Your task to perform on an android device: change the clock display to digital Image 0: 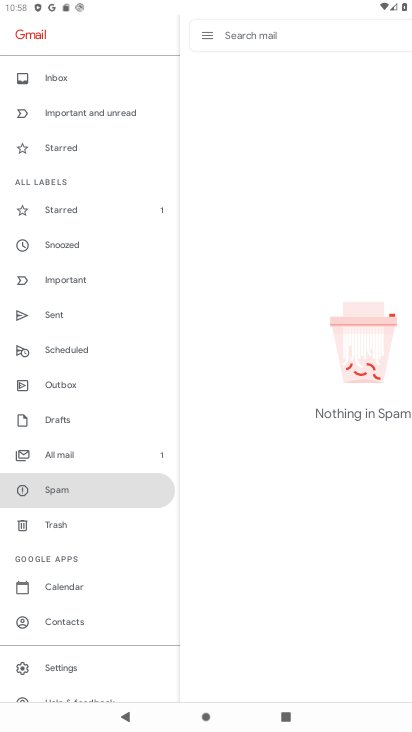
Step 0: press home button
Your task to perform on an android device: change the clock display to digital Image 1: 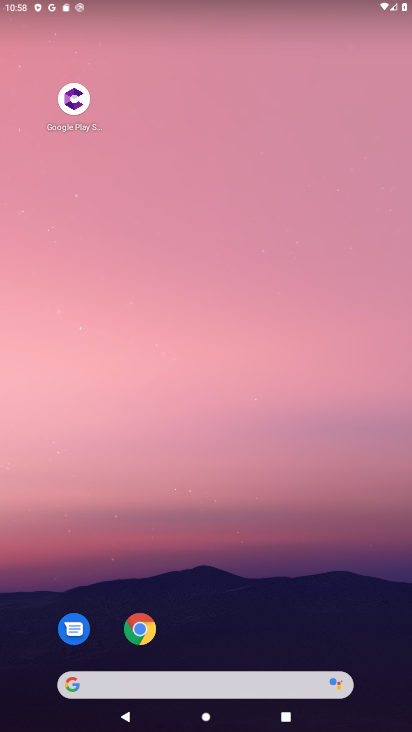
Step 1: drag from (291, 618) to (271, 104)
Your task to perform on an android device: change the clock display to digital Image 2: 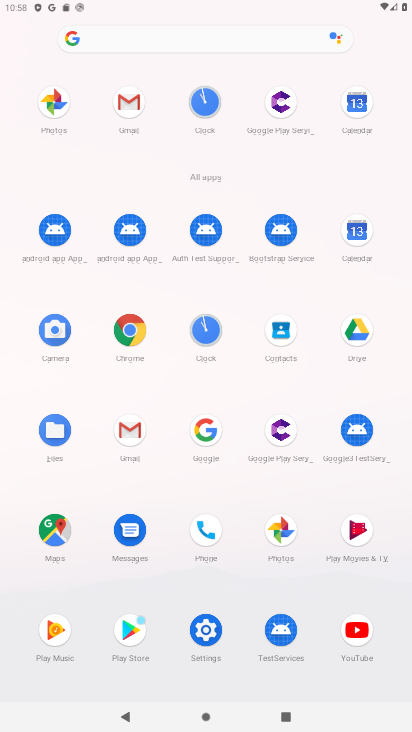
Step 2: click (201, 340)
Your task to perform on an android device: change the clock display to digital Image 3: 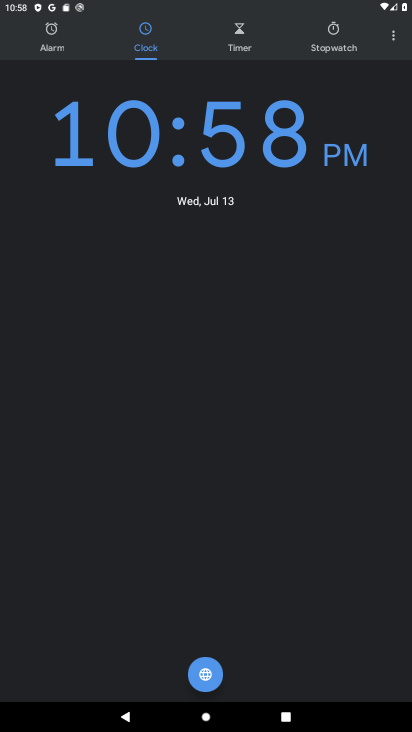
Step 3: click (395, 31)
Your task to perform on an android device: change the clock display to digital Image 4: 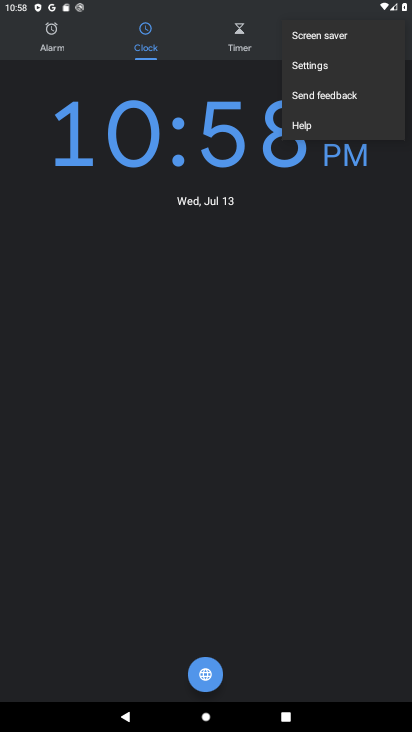
Step 4: click (330, 73)
Your task to perform on an android device: change the clock display to digital Image 5: 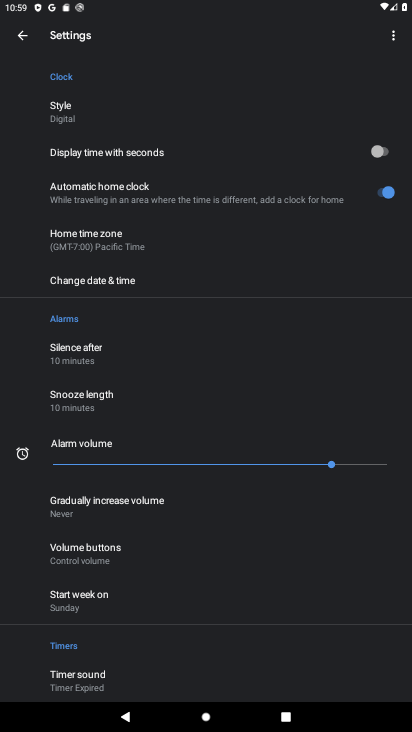
Step 5: click (103, 117)
Your task to perform on an android device: change the clock display to digital Image 6: 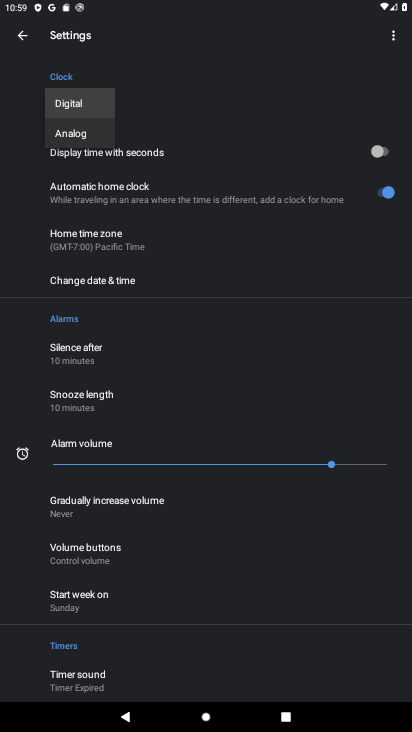
Step 6: click (95, 109)
Your task to perform on an android device: change the clock display to digital Image 7: 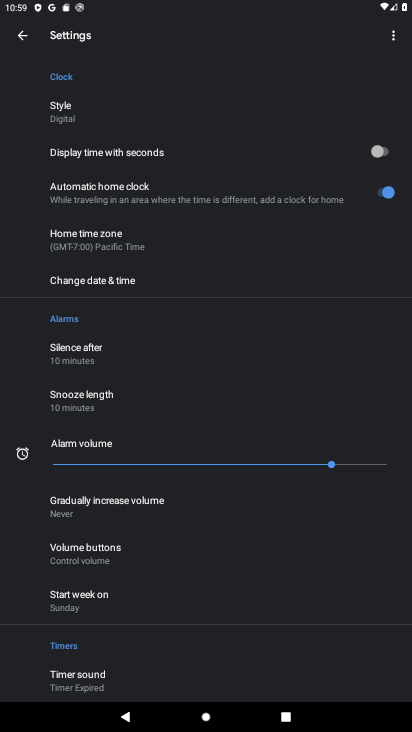
Step 7: task complete